Your task to perform on an android device: Open battery settings Image 0: 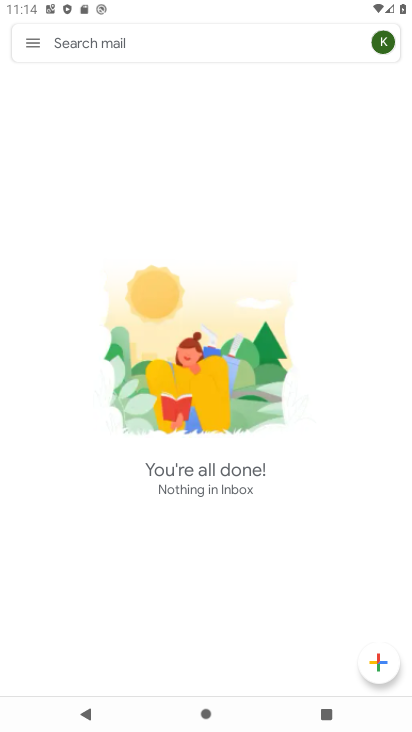
Step 0: press home button
Your task to perform on an android device: Open battery settings Image 1: 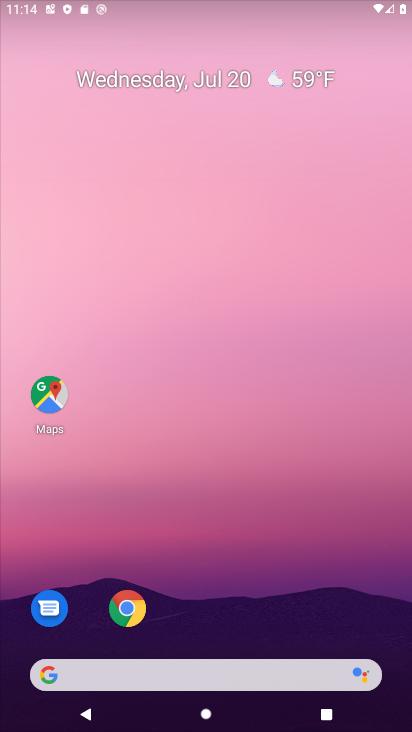
Step 1: drag from (300, 585) to (272, 0)
Your task to perform on an android device: Open battery settings Image 2: 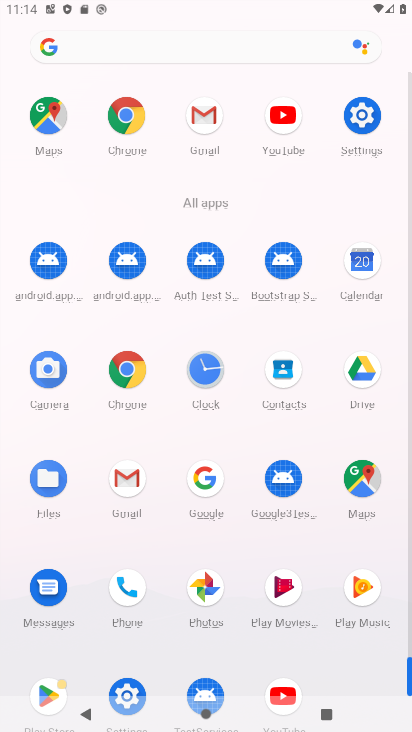
Step 2: click (349, 123)
Your task to perform on an android device: Open battery settings Image 3: 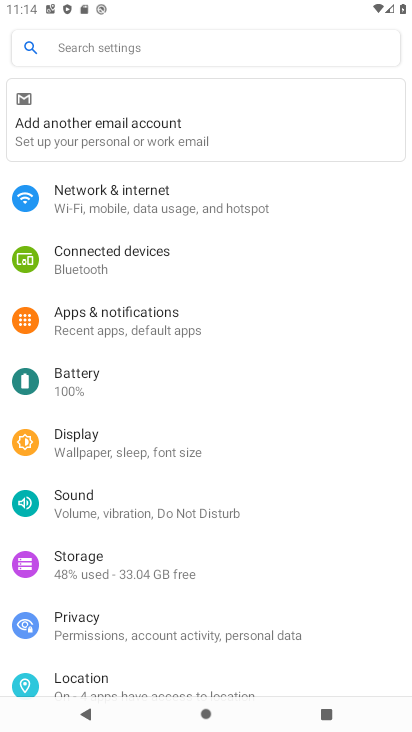
Step 3: click (96, 376)
Your task to perform on an android device: Open battery settings Image 4: 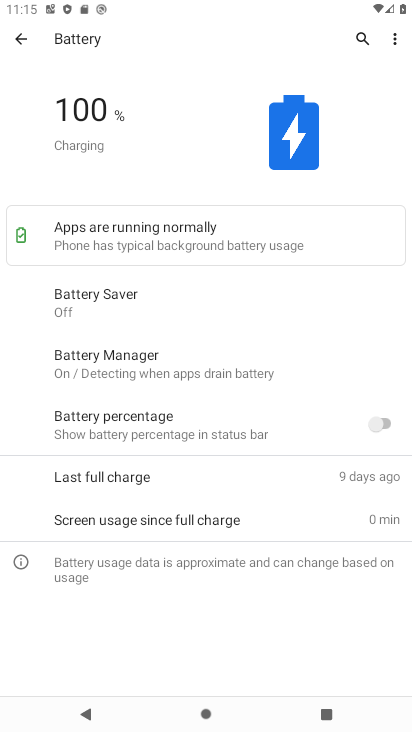
Step 4: task complete